Your task to perform on an android device: turn off data saver in the chrome app Image 0: 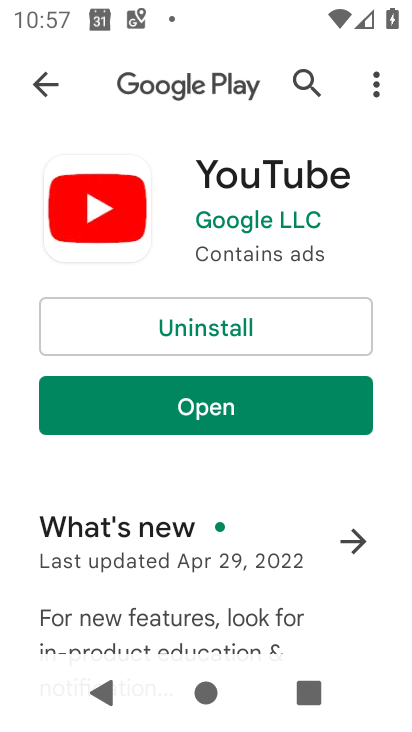
Step 0: click (212, 401)
Your task to perform on an android device: turn off data saver in the chrome app Image 1: 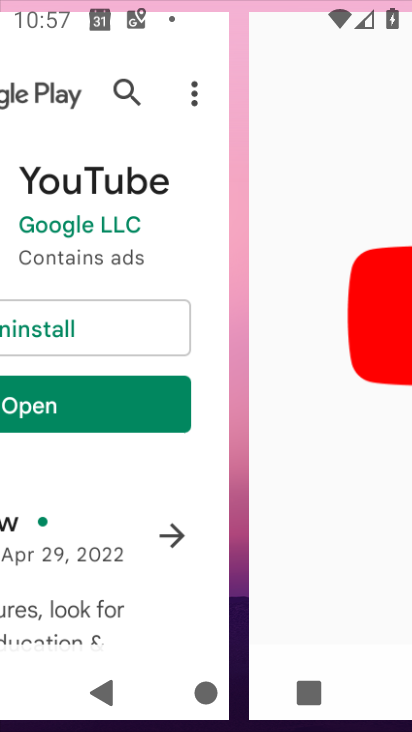
Step 1: click (209, 402)
Your task to perform on an android device: turn off data saver in the chrome app Image 2: 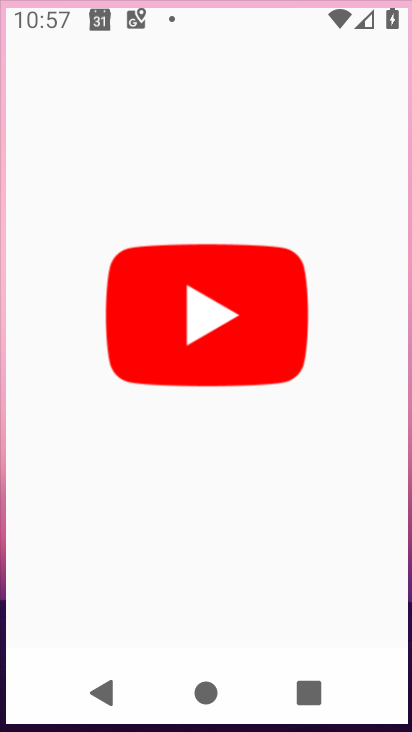
Step 2: click (210, 403)
Your task to perform on an android device: turn off data saver in the chrome app Image 3: 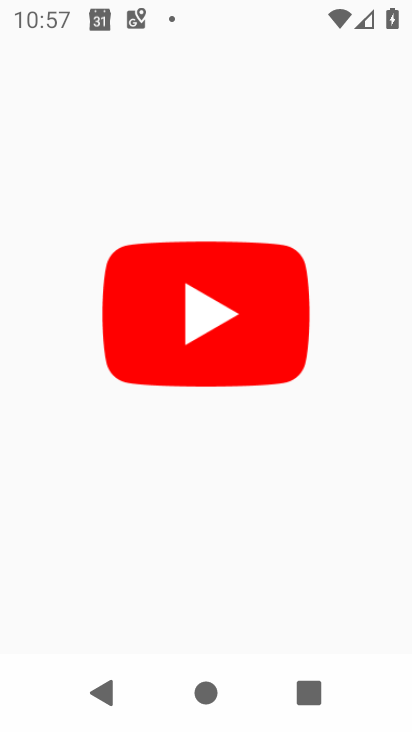
Step 3: click (210, 403)
Your task to perform on an android device: turn off data saver in the chrome app Image 4: 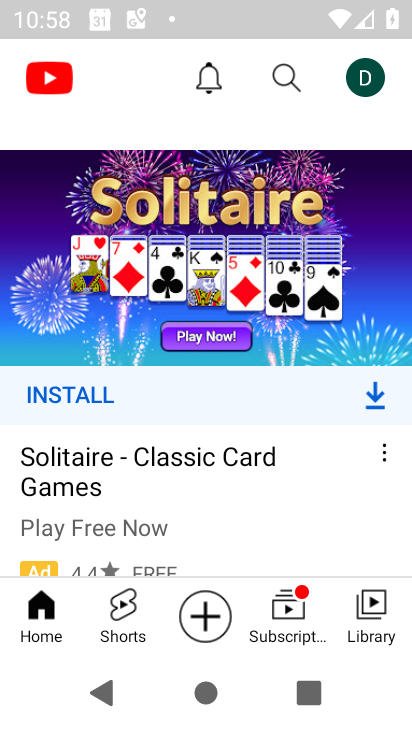
Step 4: press back button
Your task to perform on an android device: turn off data saver in the chrome app Image 5: 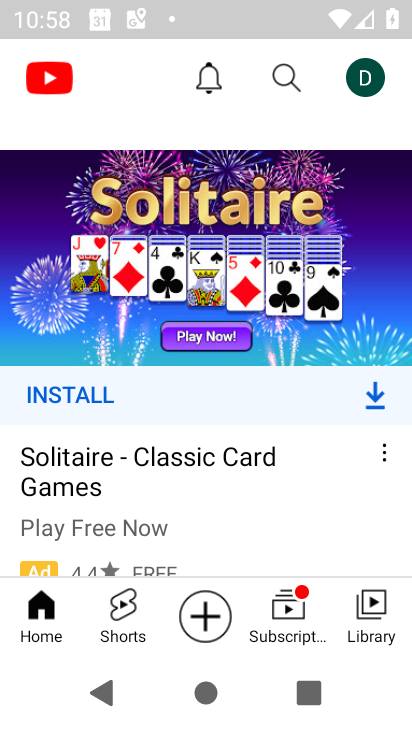
Step 5: press back button
Your task to perform on an android device: turn off data saver in the chrome app Image 6: 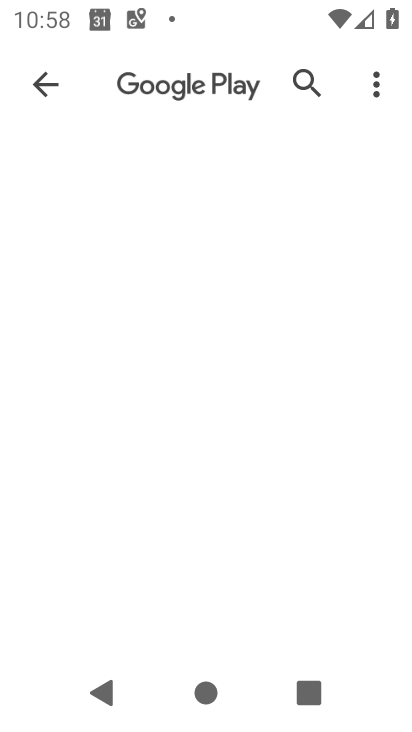
Step 6: press back button
Your task to perform on an android device: turn off data saver in the chrome app Image 7: 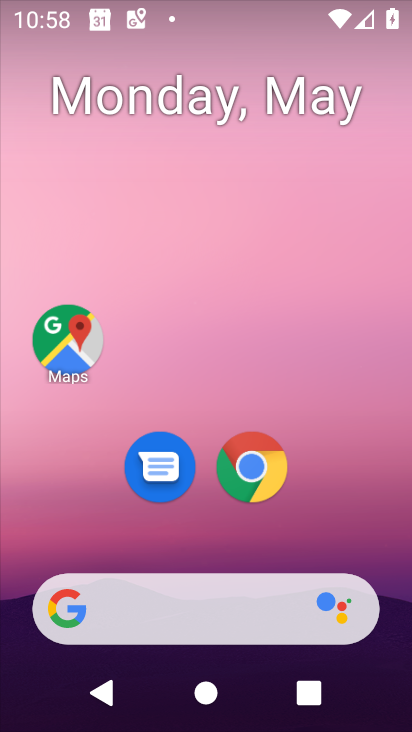
Step 7: drag from (392, 627) to (153, 58)
Your task to perform on an android device: turn off data saver in the chrome app Image 8: 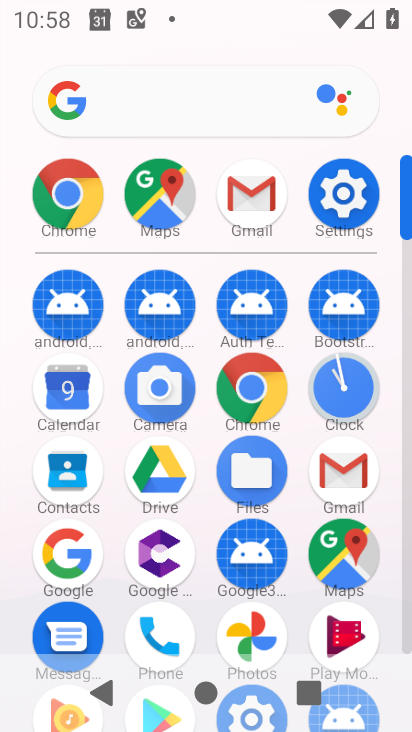
Step 8: click (61, 192)
Your task to perform on an android device: turn off data saver in the chrome app Image 9: 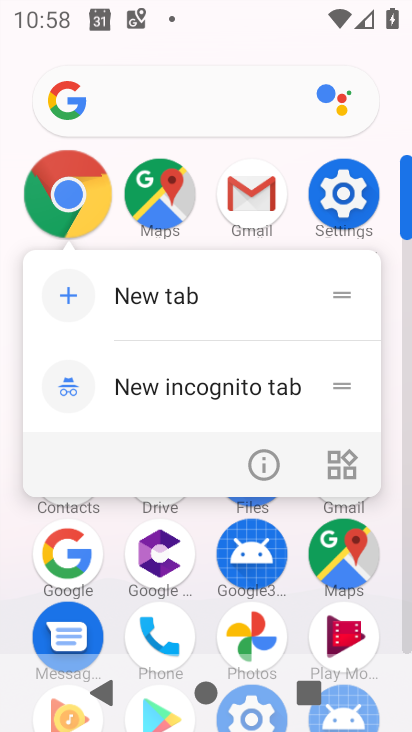
Step 9: click (67, 192)
Your task to perform on an android device: turn off data saver in the chrome app Image 10: 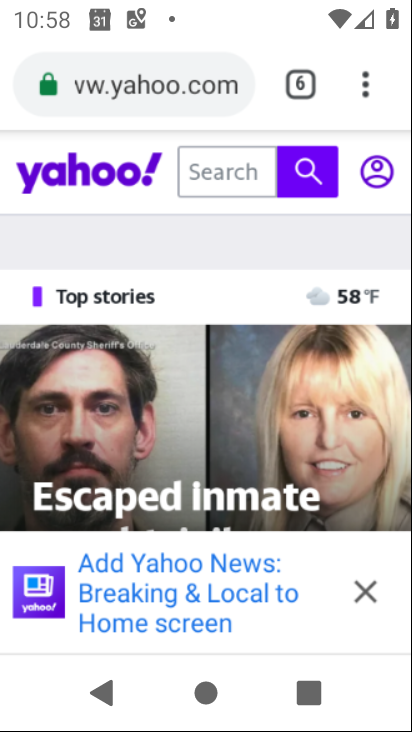
Step 10: click (68, 192)
Your task to perform on an android device: turn off data saver in the chrome app Image 11: 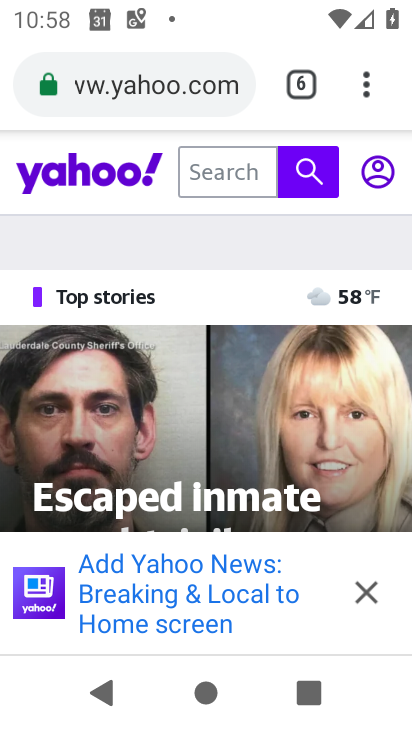
Step 11: drag from (365, 86) to (79, 511)
Your task to perform on an android device: turn off data saver in the chrome app Image 12: 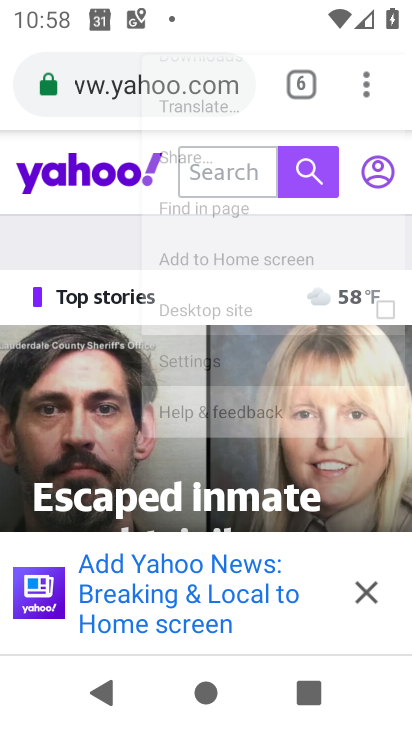
Step 12: click (81, 508)
Your task to perform on an android device: turn off data saver in the chrome app Image 13: 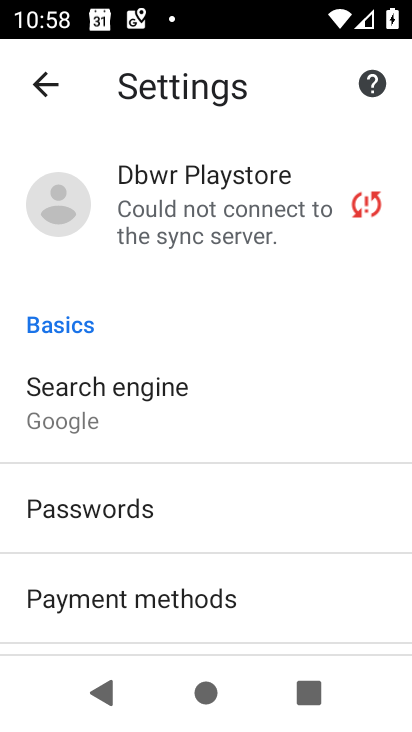
Step 13: drag from (217, 468) to (217, 104)
Your task to perform on an android device: turn off data saver in the chrome app Image 14: 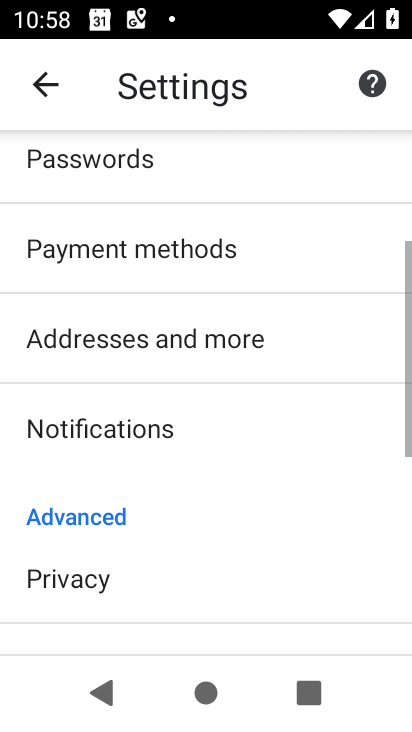
Step 14: drag from (257, 318) to (253, 95)
Your task to perform on an android device: turn off data saver in the chrome app Image 15: 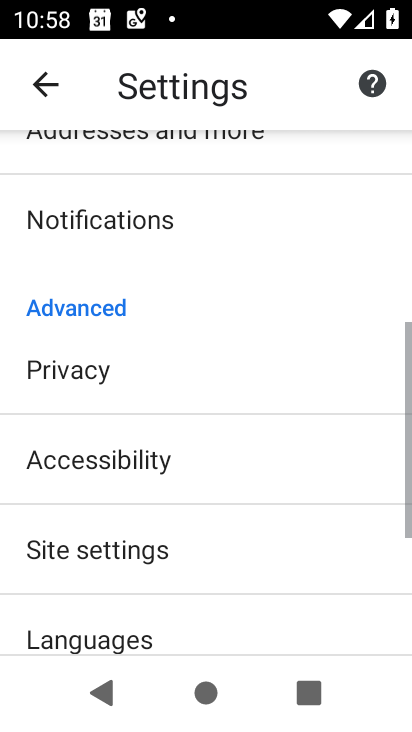
Step 15: drag from (245, 308) to (245, 136)
Your task to perform on an android device: turn off data saver in the chrome app Image 16: 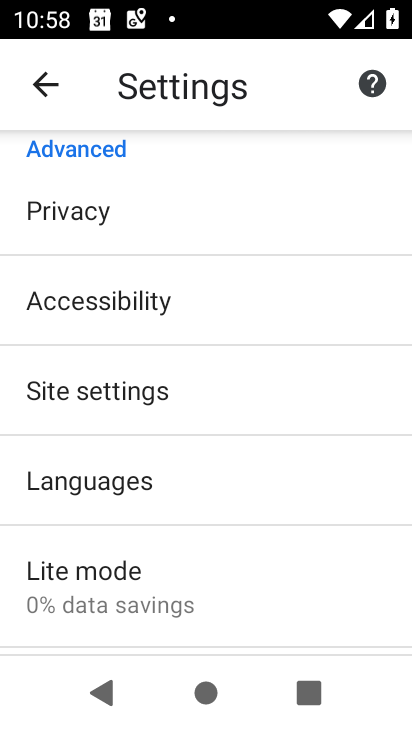
Step 16: click (74, 391)
Your task to perform on an android device: turn off data saver in the chrome app Image 17: 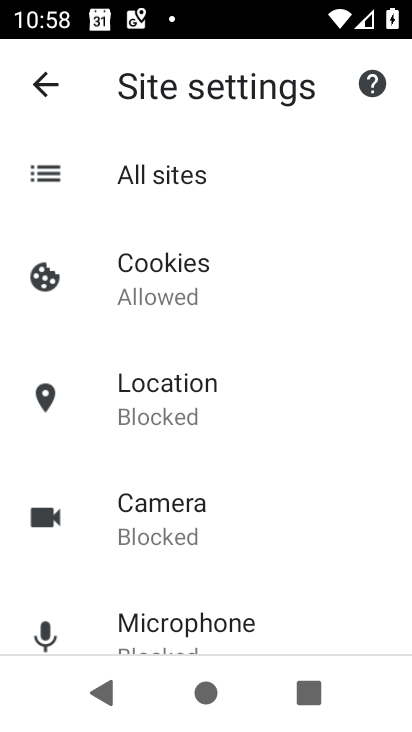
Step 17: click (42, 88)
Your task to perform on an android device: turn off data saver in the chrome app Image 18: 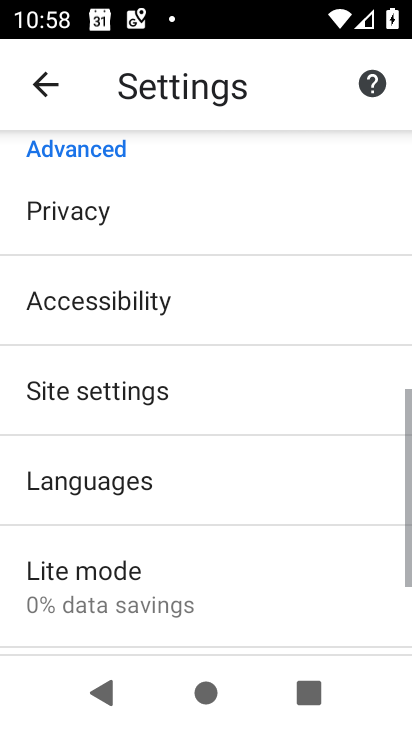
Step 18: drag from (172, 474) to (168, 117)
Your task to perform on an android device: turn off data saver in the chrome app Image 19: 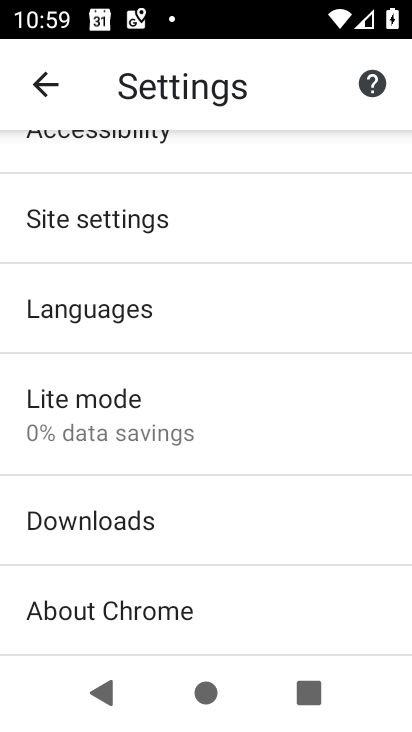
Step 19: click (84, 387)
Your task to perform on an android device: turn off data saver in the chrome app Image 20: 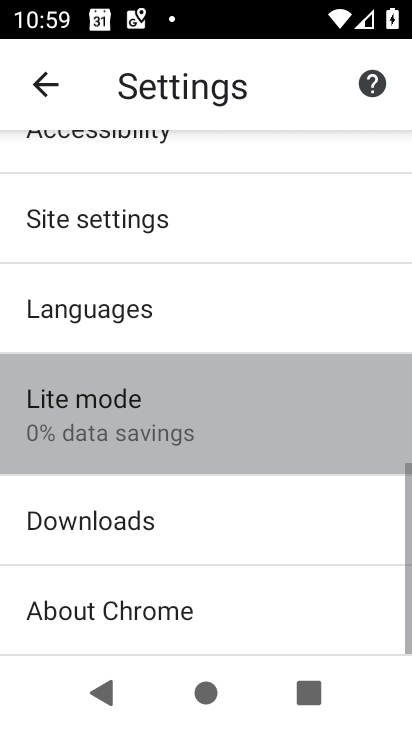
Step 20: click (85, 391)
Your task to perform on an android device: turn off data saver in the chrome app Image 21: 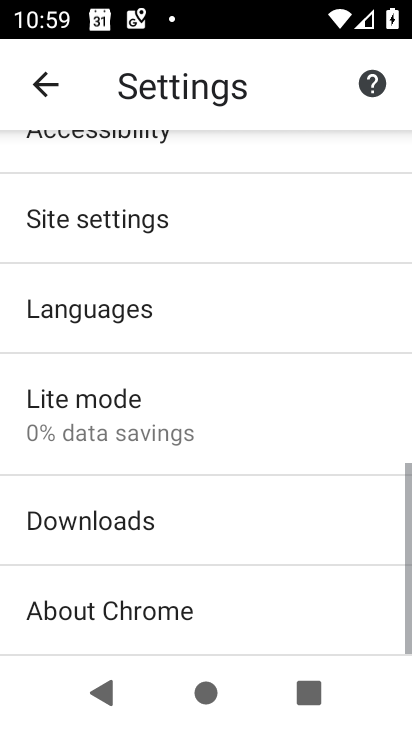
Step 21: click (86, 393)
Your task to perform on an android device: turn off data saver in the chrome app Image 22: 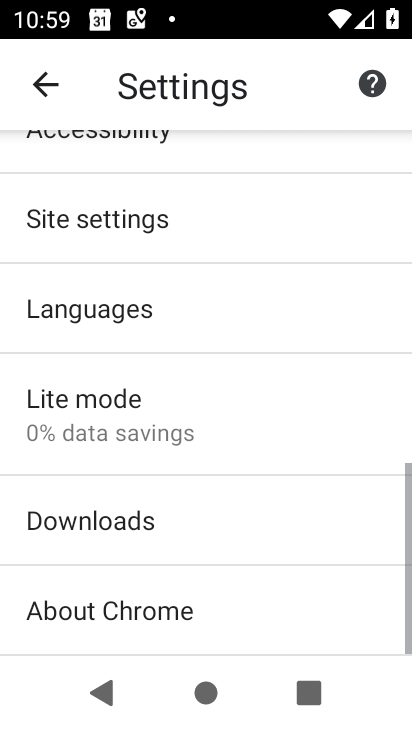
Step 22: click (89, 392)
Your task to perform on an android device: turn off data saver in the chrome app Image 23: 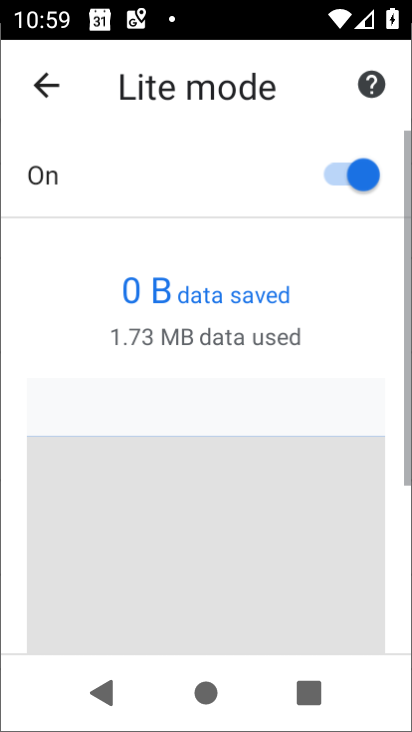
Step 23: click (92, 363)
Your task to perform on an android device: turn off data saver in the chrome app Image 24: 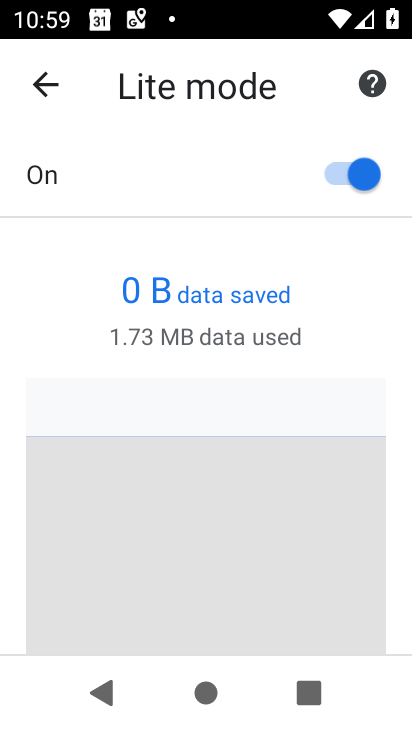
Step 24: click (356, 173)
Your task to perform on an android device: turn off data saver in the chrome app Image 25: 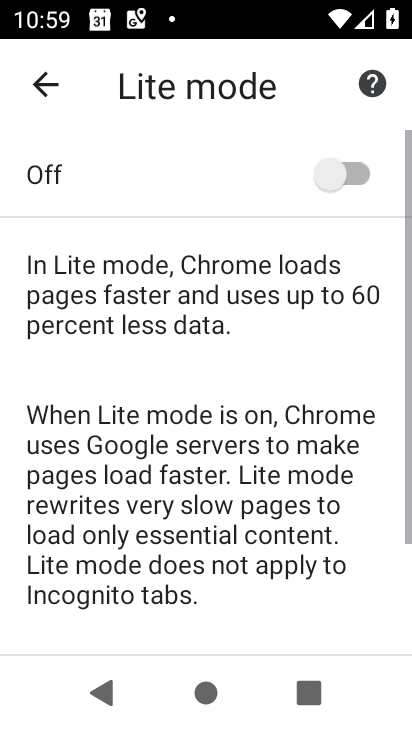
Step 25: task complete